Your task to perform on an android device: Search for sushi restaurants on Maps Image 0: 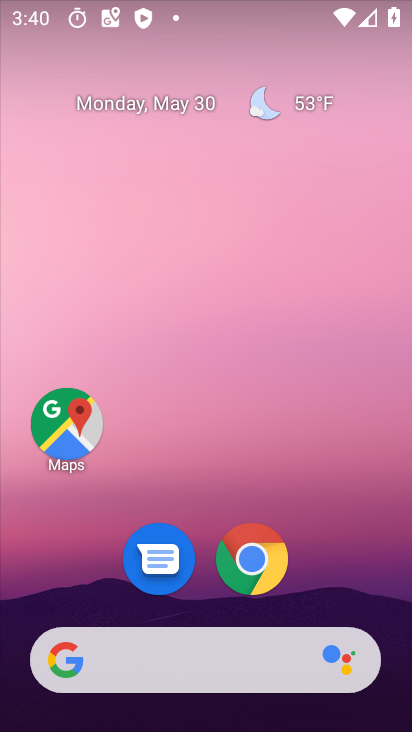
Step 0: drag from (211, 709) to (211, 303)
Your task to perform on an android device: Search for sushi restaurants on Maps Image 1: 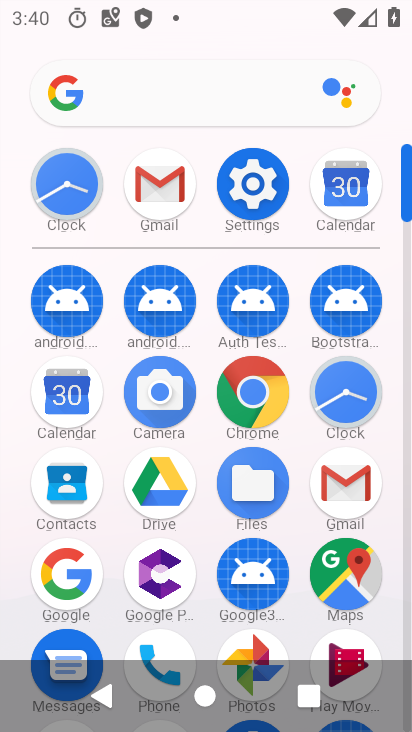
Step 1: click (352, 568)
Your task to perform on an android device: Search for sushi restaurants on Maps Image 2: 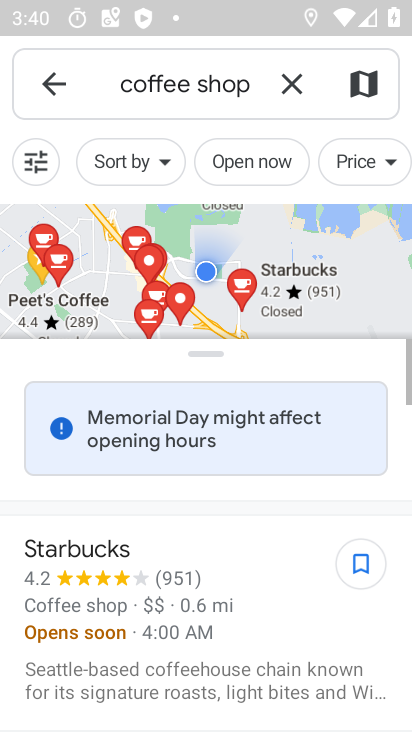
Step 2: click (295, 80)
Your task to perform on an android device: Search for sushi restaurants on Maps Image 3: 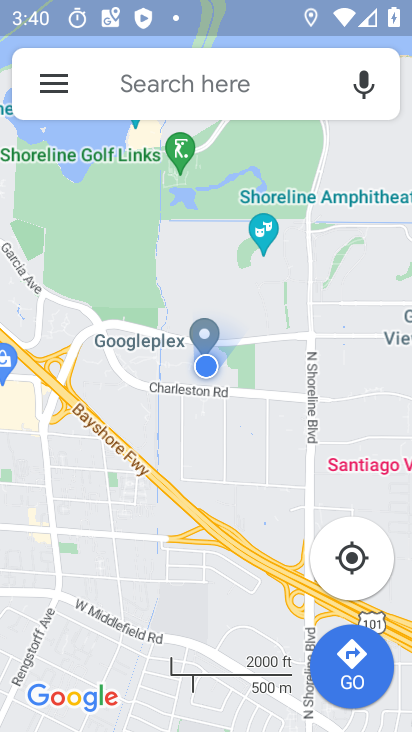
Step 3: click (183, 90)
Your task to perform on an android device: Search for sushi restaurants on Maps Image 4: 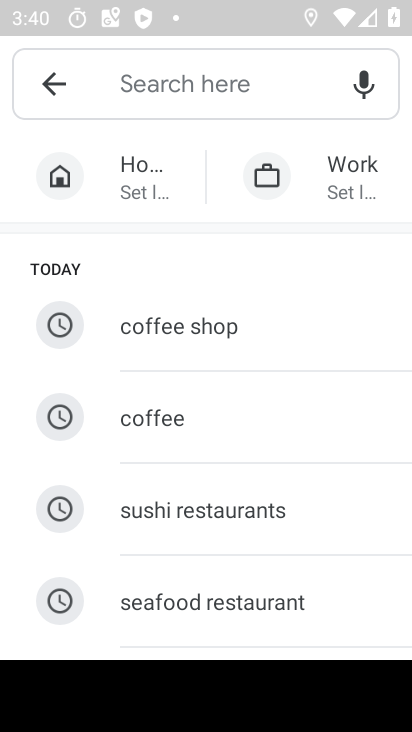
Step 4: type "sushi restaurants"
Your task to perform on an android device: Search for sushi restaurants on Maps Image 5: 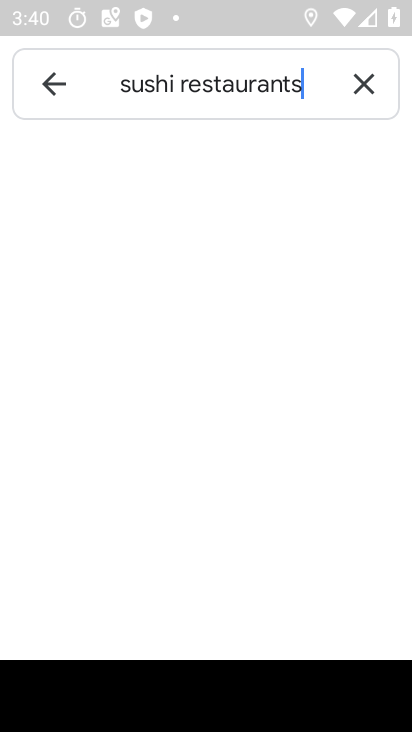
Step 5: type ""
Your task to perform on an android device: Search for sushi restaurants on Maps Image 6: 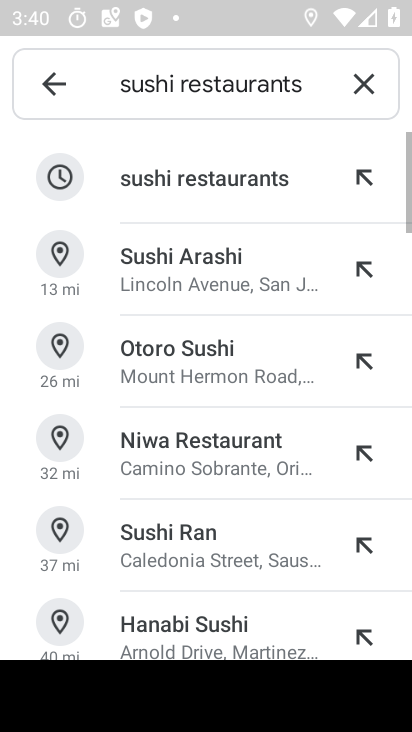
Step 6: click (205, 176)
Your task to perform on an android device: Search for sushi restaurants on Maps Image 7: 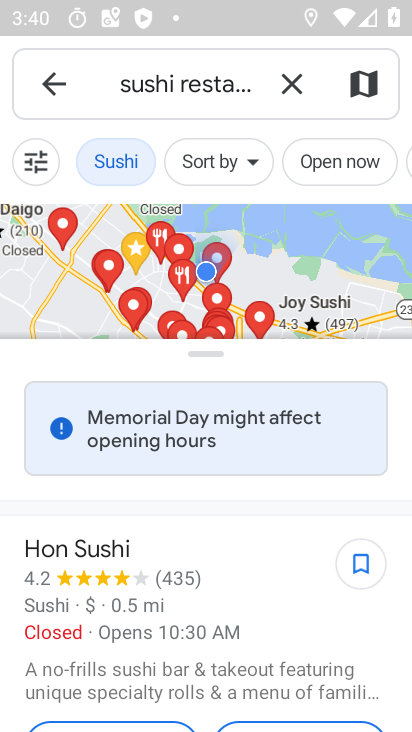
Step 7: task complete